Your task to perform on an android device: open chrome privacy settings Image 0: 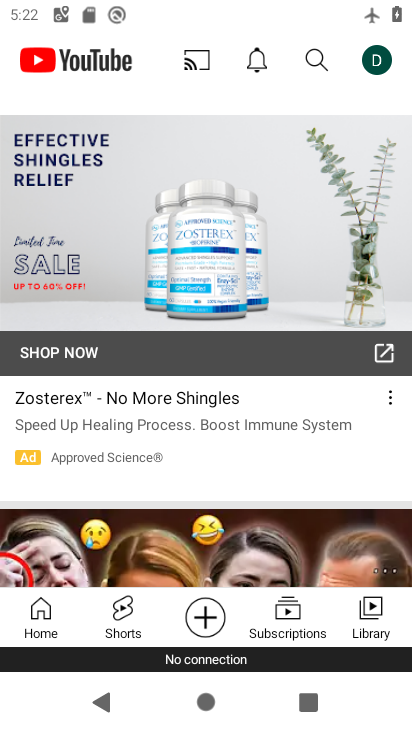
Step 0: press home button
Your task to perform on an android device: open chrome privacy settings Image 1: 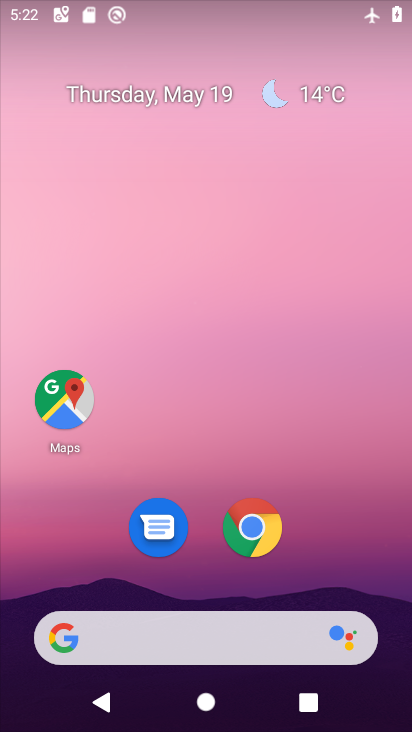
Step 1: drag from (339, 543) to (237, 20)
Your task to perform on an android device: open chrome privacy settings Image 2: 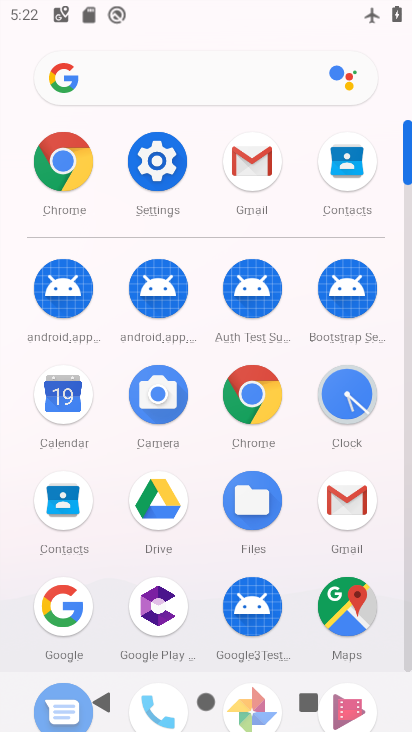
Step 2: click (260, 404)
Your task to perform on an android device: open chrome privacy settings Image 3: 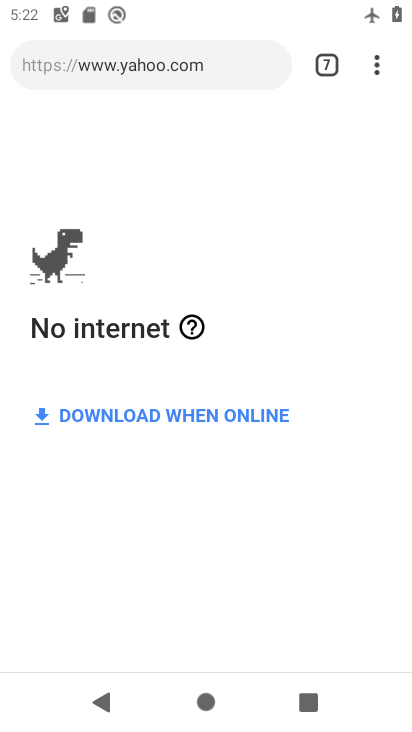
Step 3: click (381, 58)
Your task to perform on an android device: open chrome privacy settings Image 4: 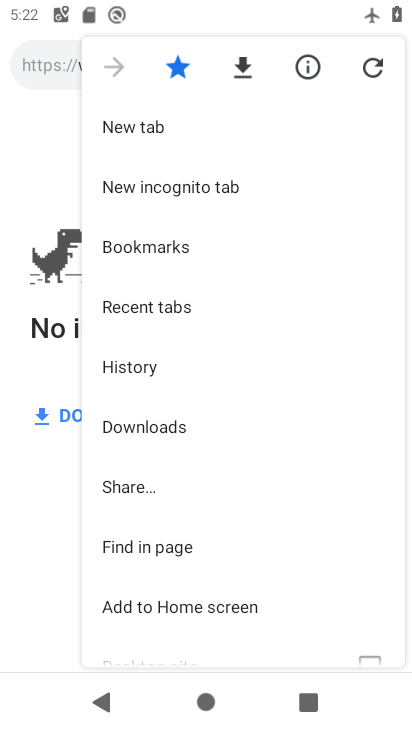
Step 4: drag from (272, 561) to (247, 200)
Your task to perform on an android device: open chrome privacy settings Image 5: 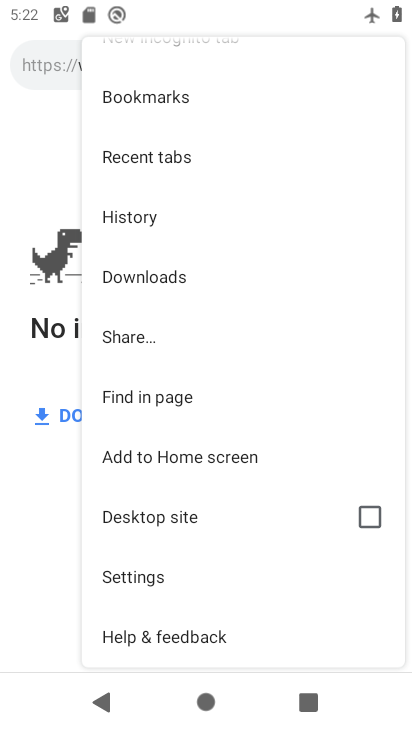
Step 5: click (181, 583)
Your task to perform on an android device: open chrome privacy settings Image 6: 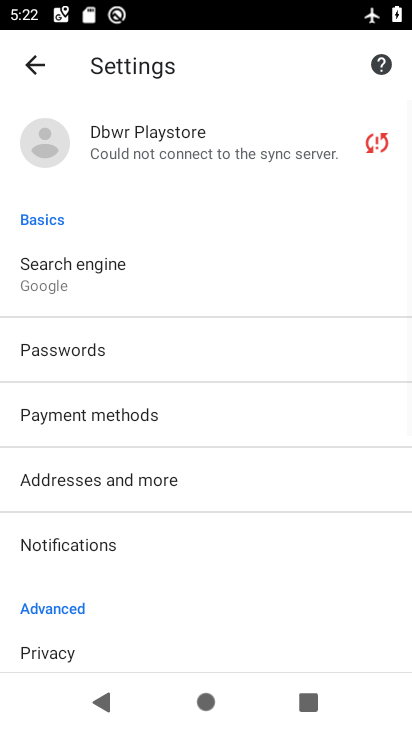
Step 6: drag from (202, 562) to (181, 148)
Your task to perform on an android device: open chrome privacy settings Image 7: 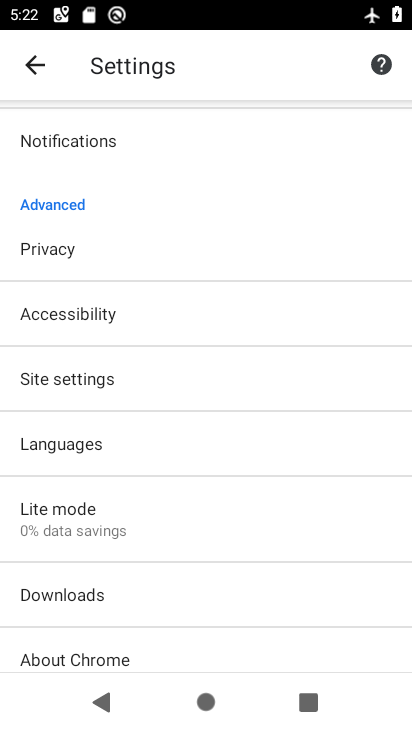
Step 7: click (91, 245)
Your task to perform on an android device: open chrome privacy settings Image 8: 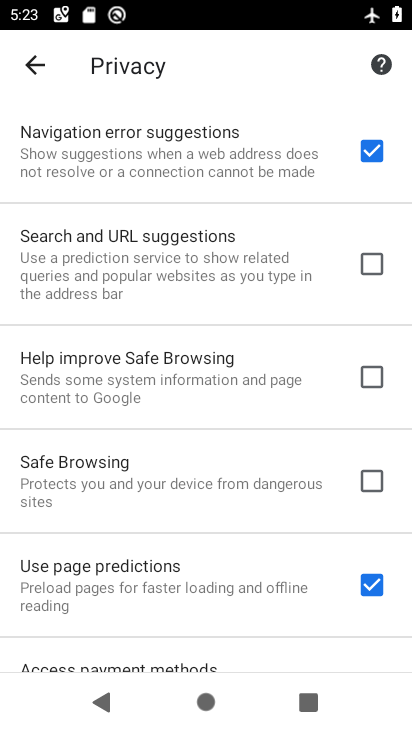
Step 8: task complete